Your task to perform on an android device: turn off picture-in-picture Image 0: 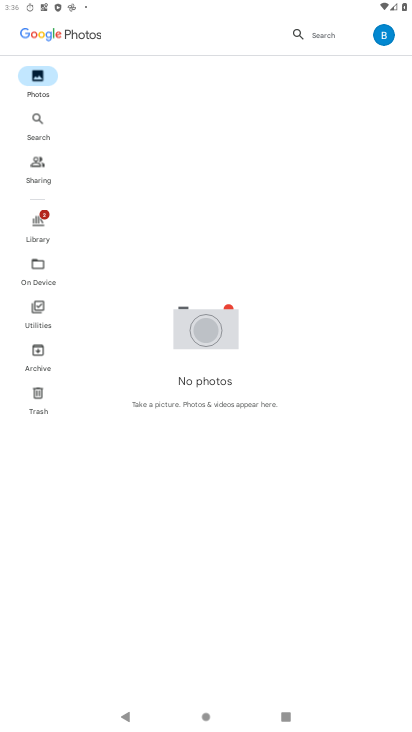
Step 0: press home button
Your task to perform on an android device: turn off picture-in-picture Image 1: 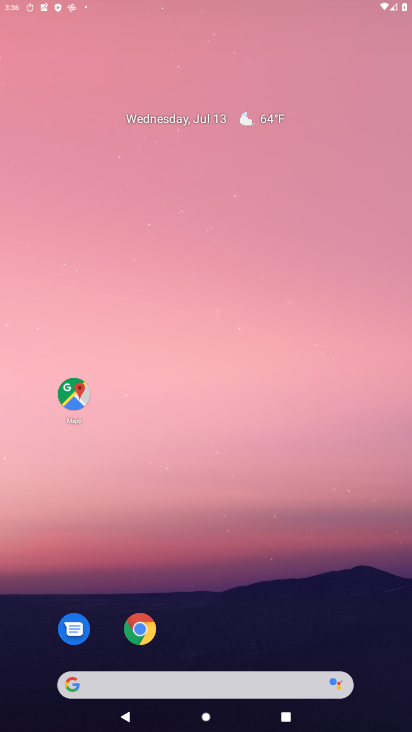
Step 1: drag from (330, 634) to (289, 4)
Your task to perform on an android device: turn off picture-in-picture Image 2: 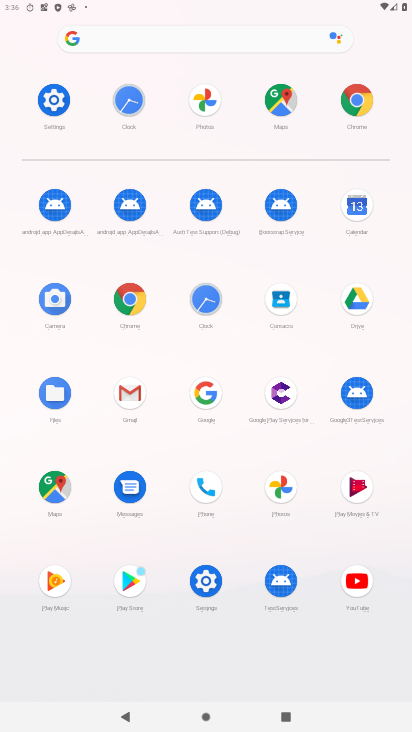
Step 2: click (45, 108)
Your task to perform on an android device: turn off picture-in-picture Image 3: 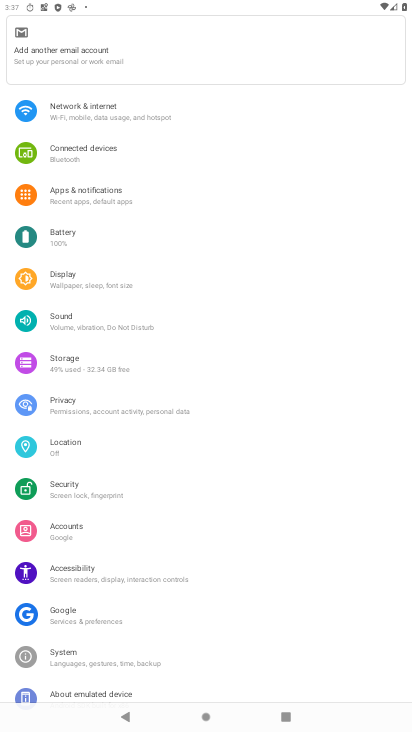
Step 3: click (94, 191)
Your task to perform on an android device: turn off picture-in-picture Image 4: 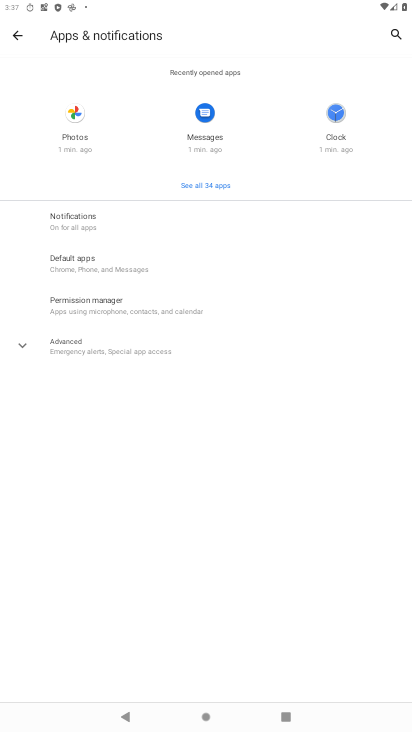
Step 4: click (76, 344)
Your task to perform on an android device: turn off picture-in-picture Image 5: 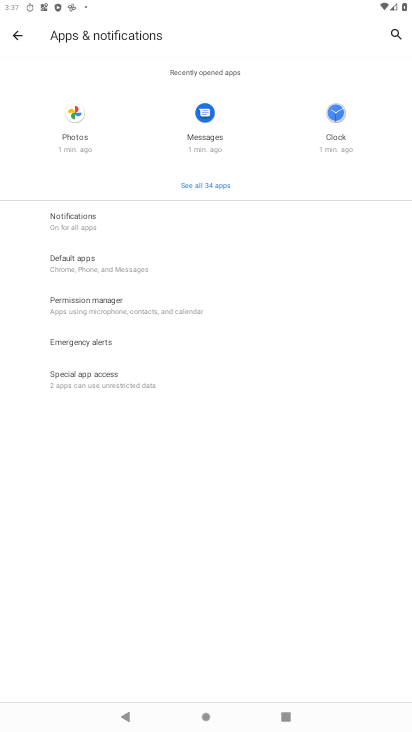
Step 5: click (98, 380)
Your task to perform on an android device: turn off picture-in-picture Image 6: 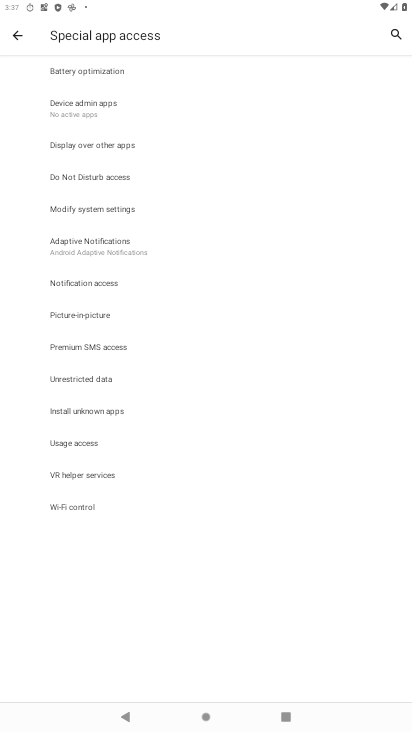
Step 6: click (84, 317)
Your task to perform on an android device: turn off picture-in-picture Image 7: 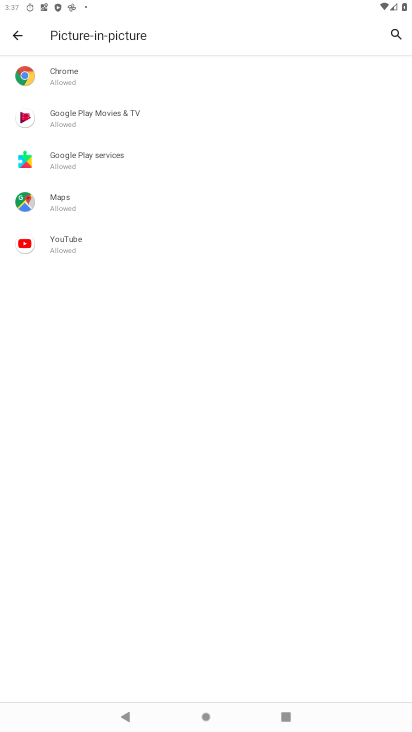
Step 7: click (82, 74)
Your task to perform on an android device: turn off picture-in-picture Image 8: 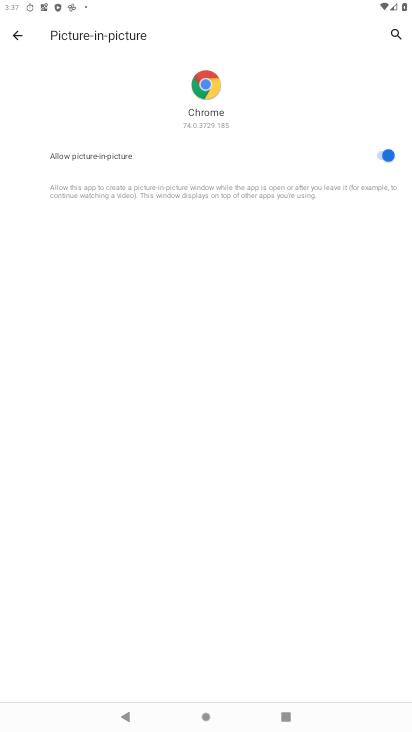
Step 8: click (377, 154)
Your task to perform on an android device: turn off picture-in-picture Image 9: 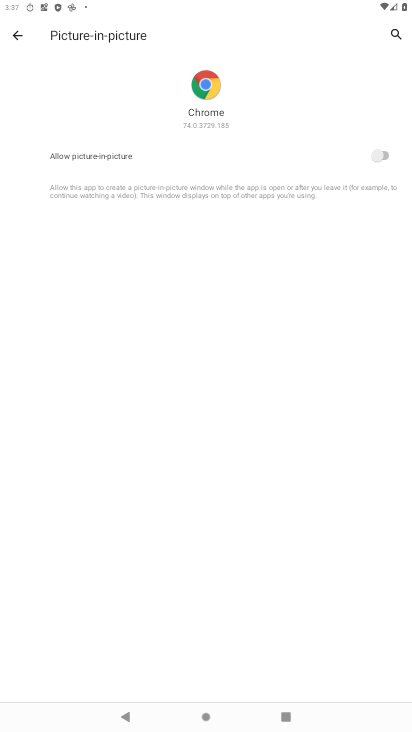
Step 9: press back button
Your task to perform on an android device: turn off picture-in-picture Image 10: 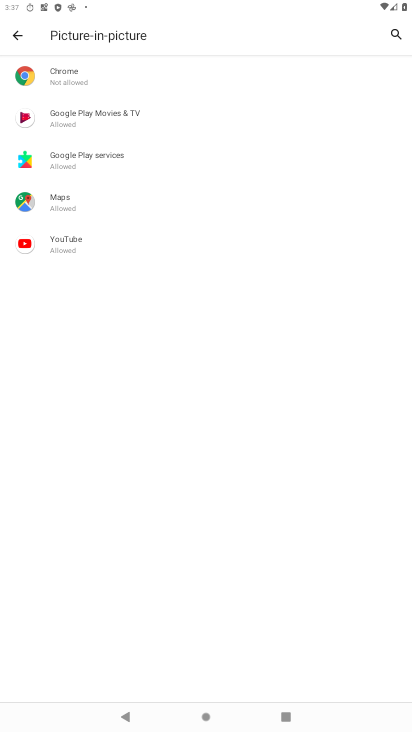
Step 10: click (99, 115)
Your task to perform on an android device: turn off picture-in-picture Image 11: 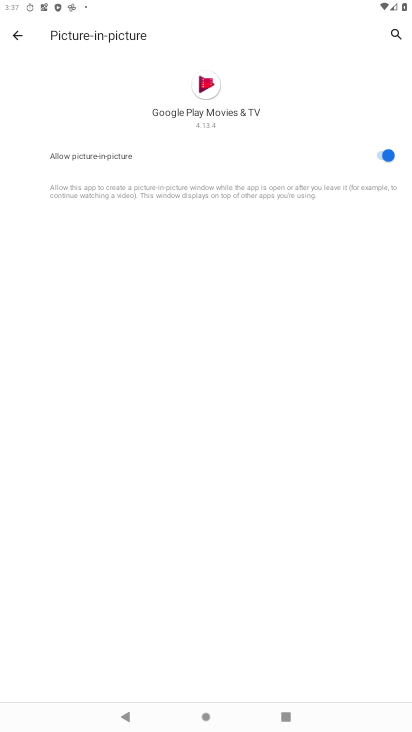
Step 11: click (379, 153)
Your task to perform on an android device: turn off picture-in-picture Image 12: 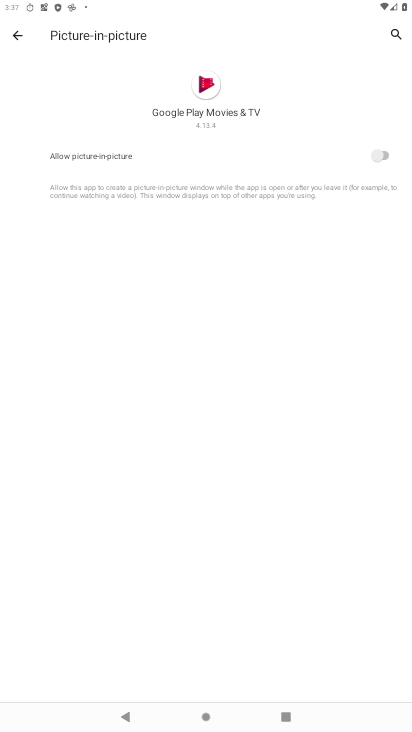
Step 12: press back button
Your task to perform on an android device: turn off picture-in-picture Image 13: 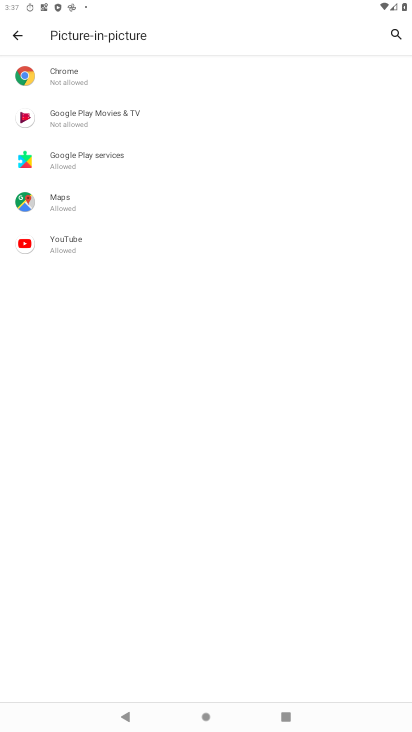
Step 13: click (78, 164)
Your task to perform on an android device: turn off picture-in-picture Image 14: 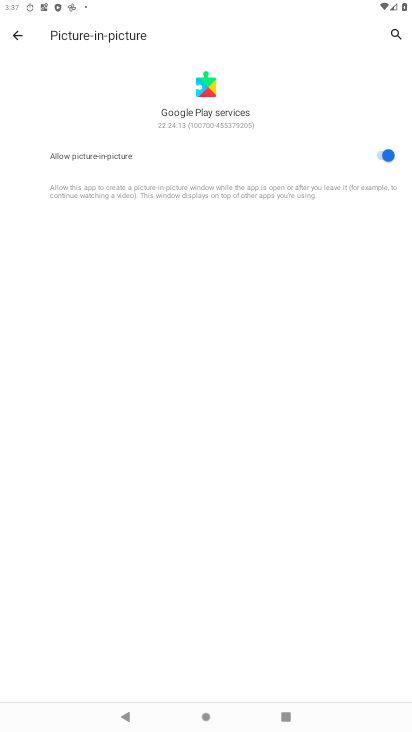
Step 14: click (383, 159)
Your task to perform on an android device: turn off picture-in-picture Image 15: 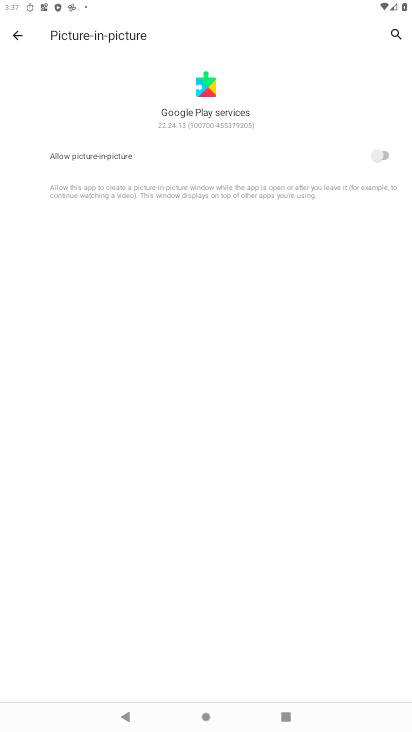
Step 15: press back button
Your task to perform on an android device: turn off picture-in-picture Image 16: 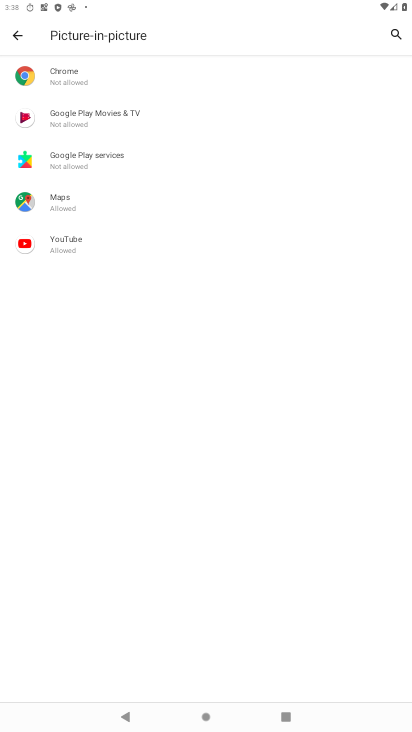
Step 16: click (88, 192)
Your task to perform on an android device: turn off picture-in-picture Image 17: 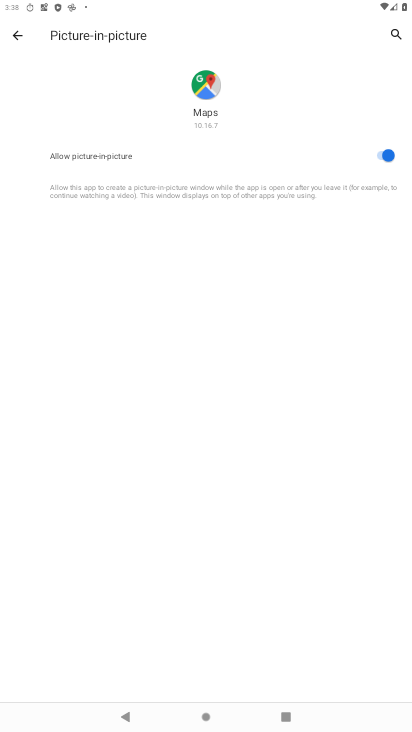
Step 17: click (380, 155)
Your task to perform on an android device: turn off picture-in-picture Image 18: 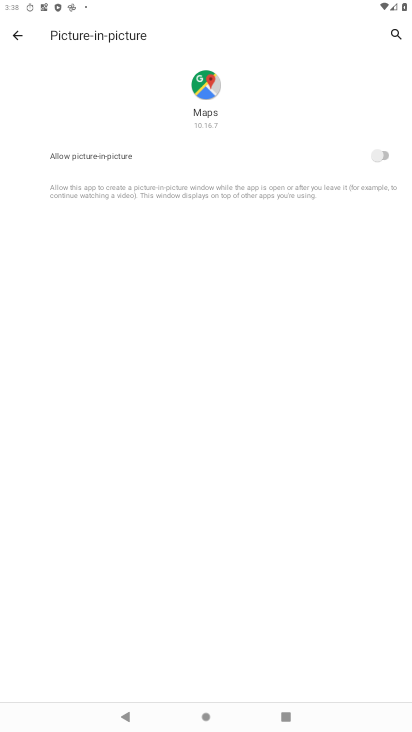
Step 18: press back button
Your task to perform on an android device: turn off picture-in-picture Image 19: 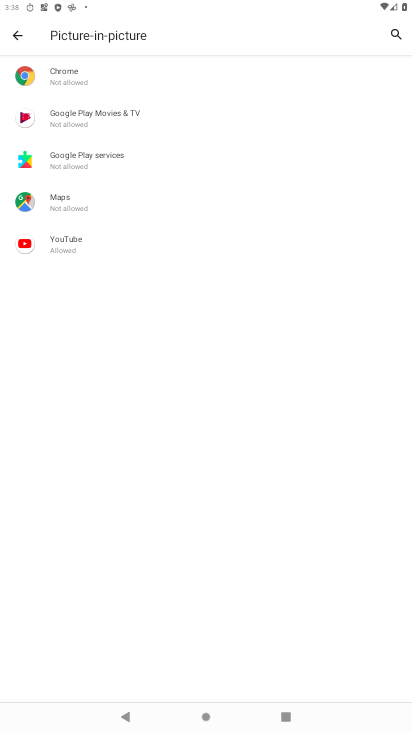
Step 19: click (103, 253)
Your task to perform on an android device: turn off picture-in-picture Image 20: 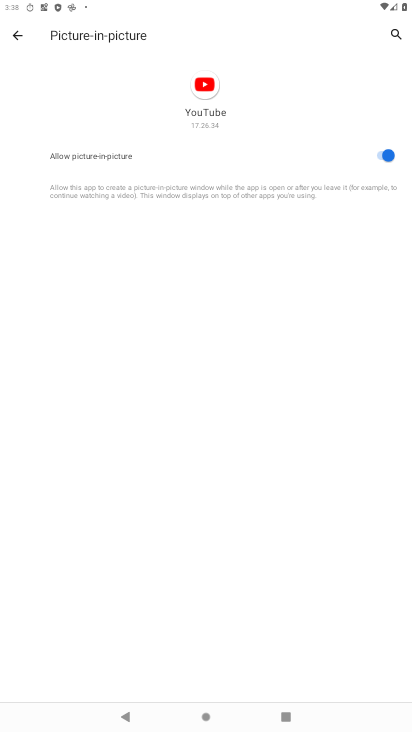
Step 20: click (383, 158)
Your task to perform on an android device: turn off picture-in-picture Image 21: 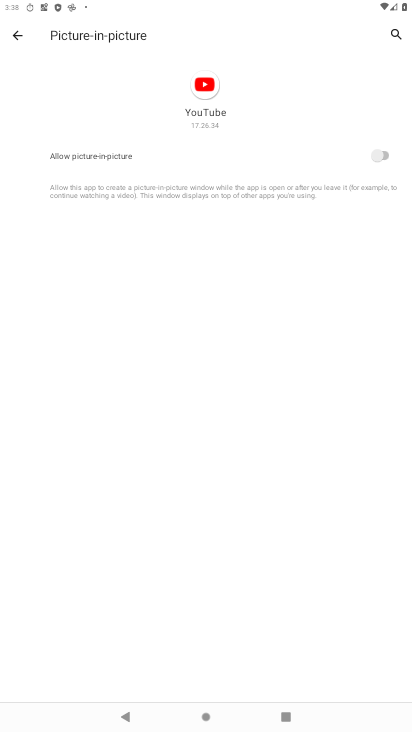
Step 21: task complete